Your task to perform on an android device: Open Chrome and go to settings Image 0: 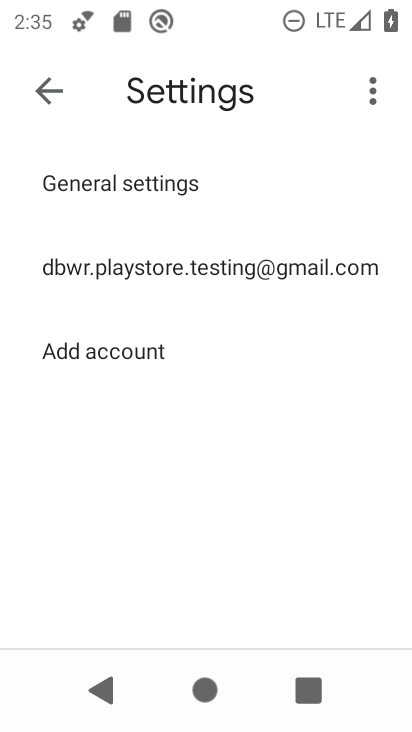
Step 0: press home button
Your task to perform on an android device: Open Chrome and go to settings Image 1: 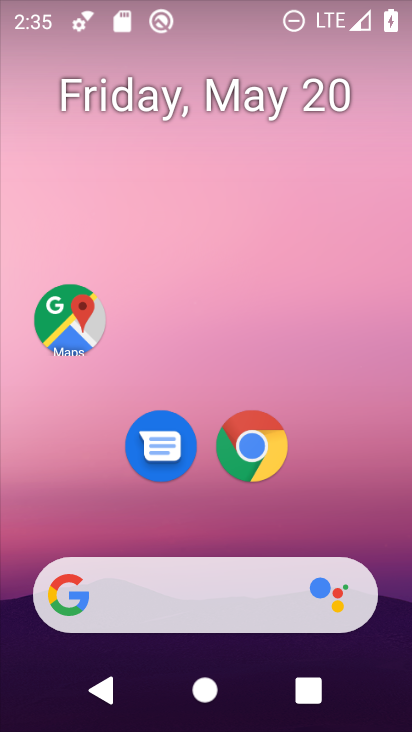
Step 1: click (256, 444)
Your task to perform on an android device: Open Chrome and go to settings Image 2: 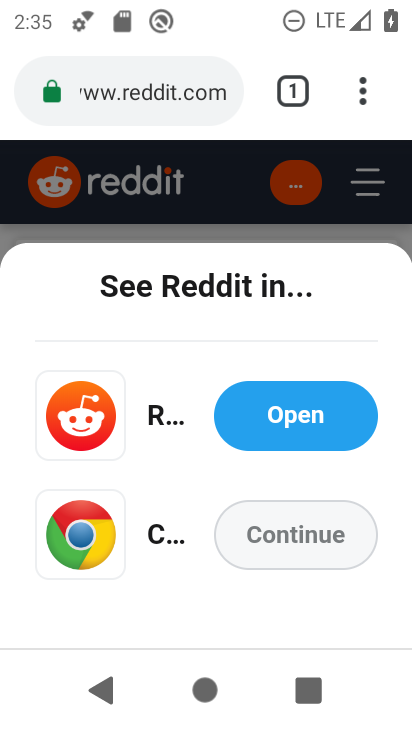
Step 2: click (366, 97)
Your task to perform on an android device: Open Chrome and go to settings Image 3: 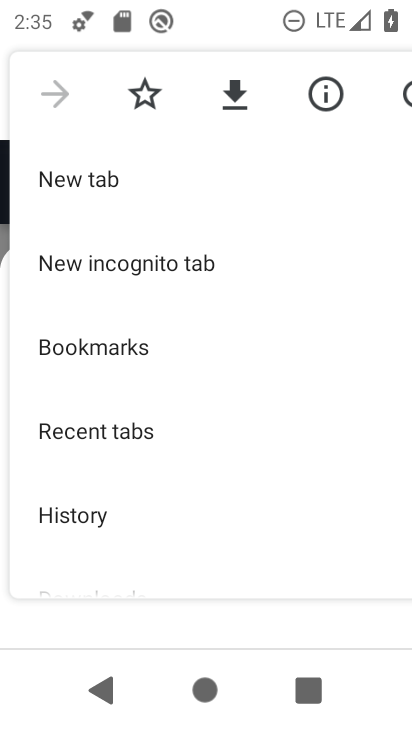
Step 3: drag from (198, 449) to (231, 39)
Your task to perform on an android device: Open Chrome and go to settings Image 4: 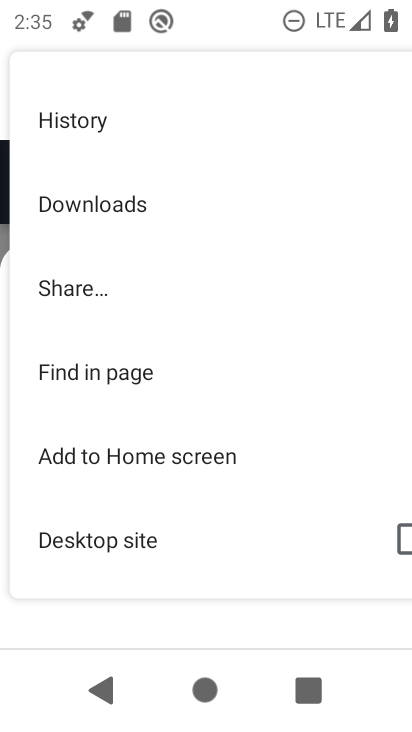
Step 4: drag from (142, 406) to (169, 98)
Your task to perform on an android device: Open Chrome and go to settings Image 5: 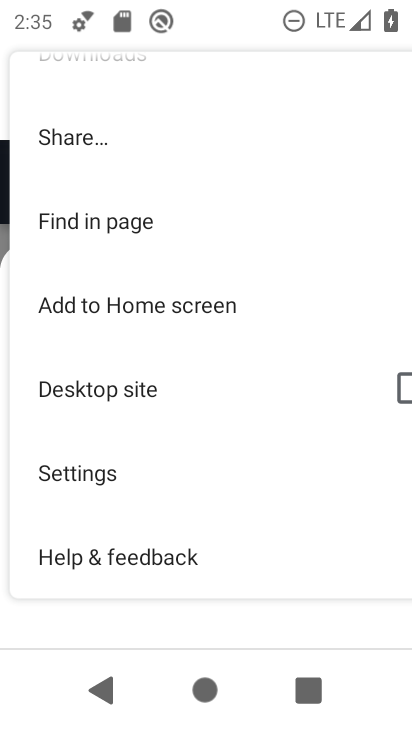
Step 5: click (91, 473)
Your task to perform on an android device: Open Chrome and go to settings Image 6: 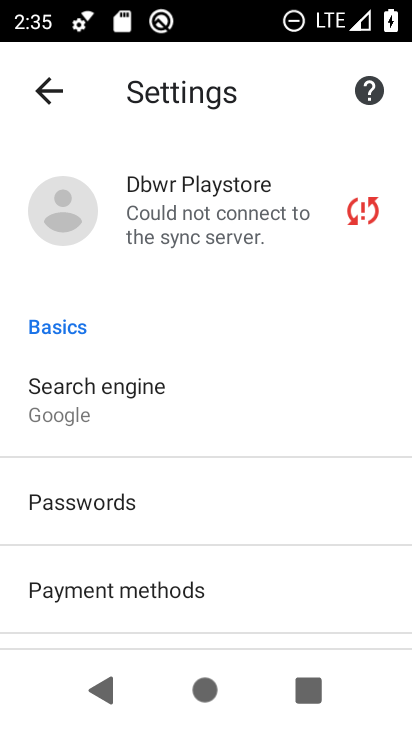
Step 6: task complete